Your task to perform on an android device: add a contact Image 0: 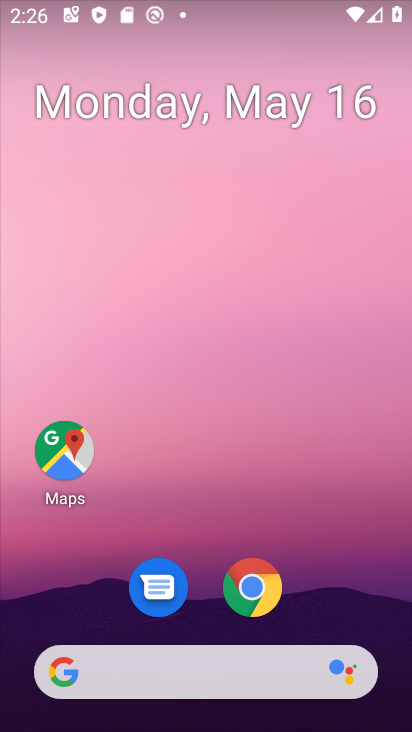
Step 0: drag from (371, 649) to (251, 236)
Your task to perform on an android device: add a contact Image 1: 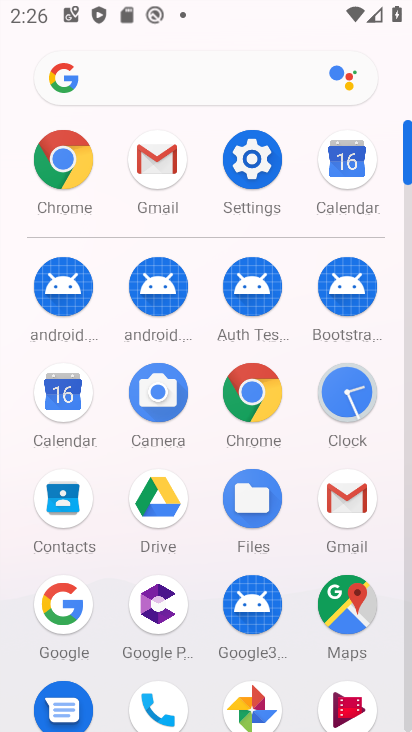
Step 1: click (62, 511)
Your task to perform on an android device: add a contact Image 2: 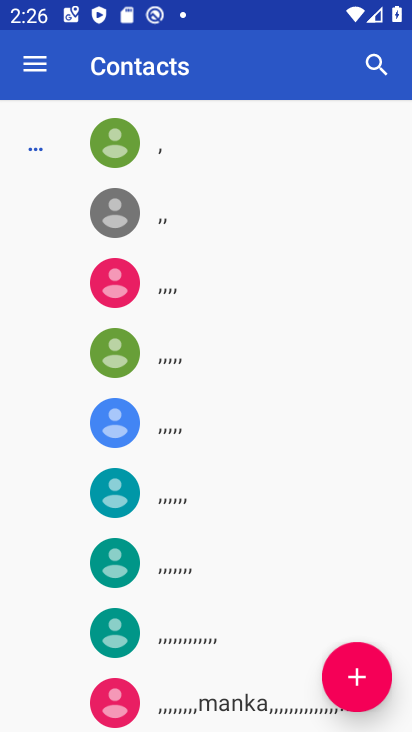
Step 2: click (338, 675)
Your task to perform on an android device: add a contact Image 3: 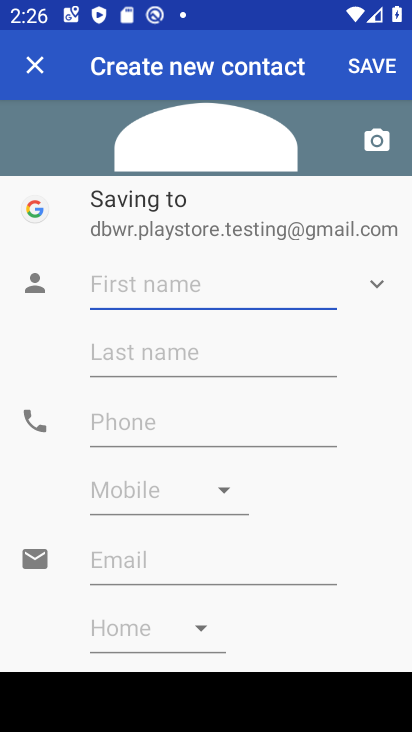
Step 3: click (129, 281)
Your task to perform on an android device: add a contact Image 4: 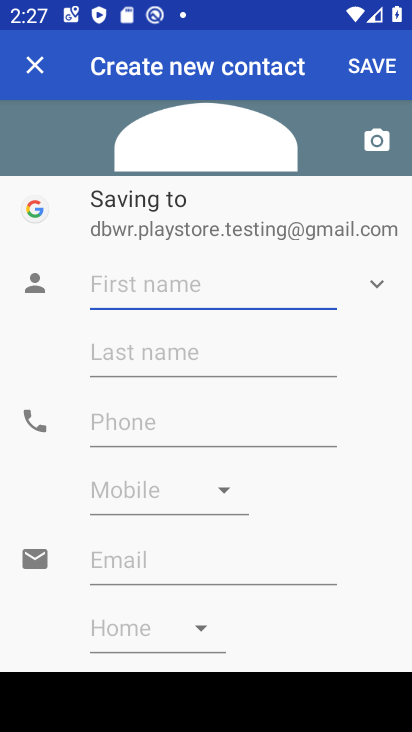
Step 4: type "n mncb   x"
Your task to perform on an android device: add a contact Image 5: 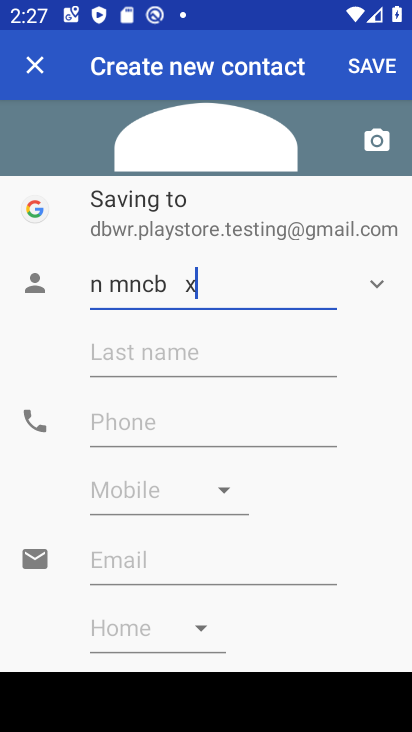
Step 5: click (108, 428)
Your task to perform on an android device: add a contact Image 6: 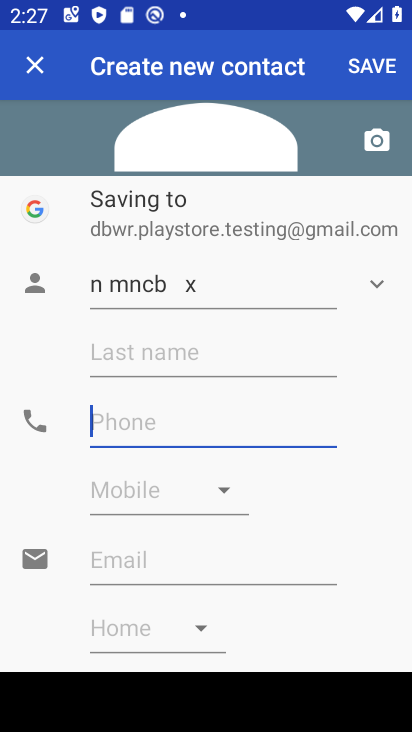
Step 6: click (108, 428)
Your task to perform on an android device: add a contact Image 7: 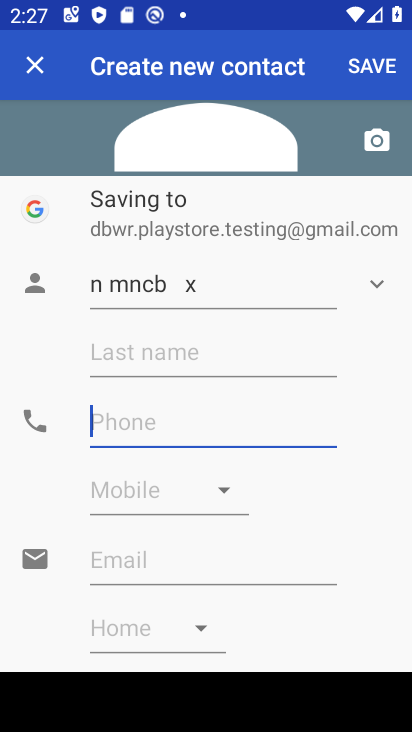
Step 7: type "7683773687283722"
Your task to perform on an android device: add a contact Image 8: 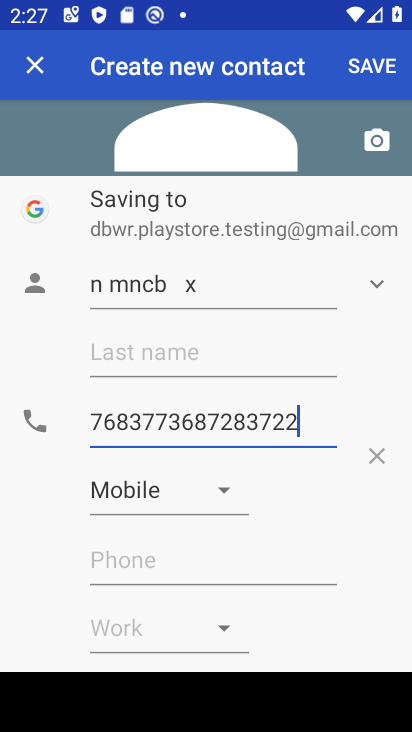
Step 8: click (385, 58)
Your task to perform on an android device: add a contact Image 9: 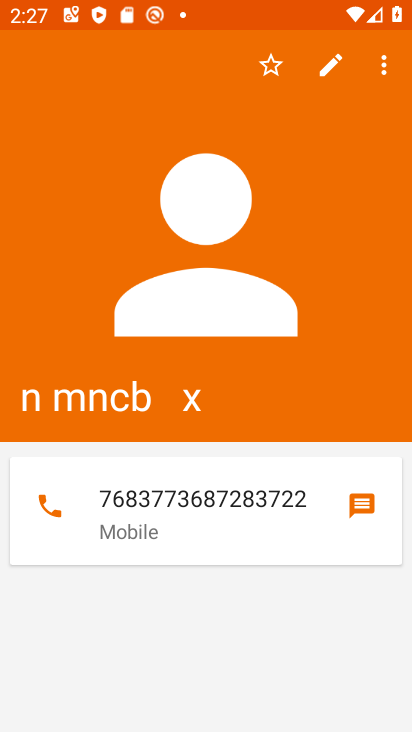
Step 9: task complete